Your task to perform on an android device: remove spam from my inbox in the gmail app Image 0: 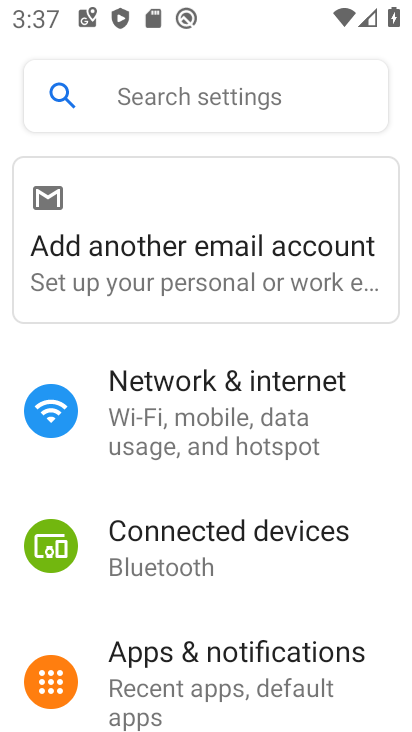
Step 0: press home button
Your task to perform on an android device: remove spam from my inbox in the gmail app Image 1: 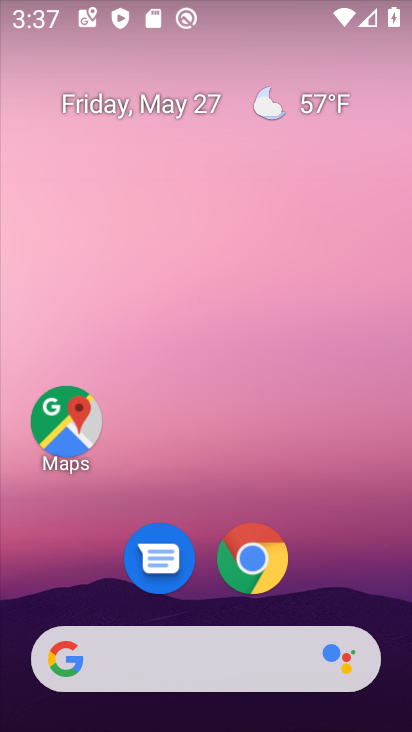
Step 1: drag from (367, 572) to (301, 62)
Your task to perform on an android device: remove spam from my inbox in the gmail app Image 2: 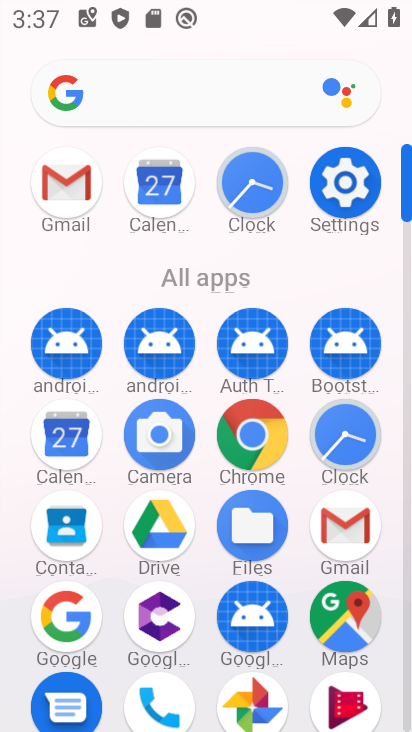
Step 2: click (84, 193)
Your task to perform on an android device: remove spam from my inbox in the gmail app Image 3: 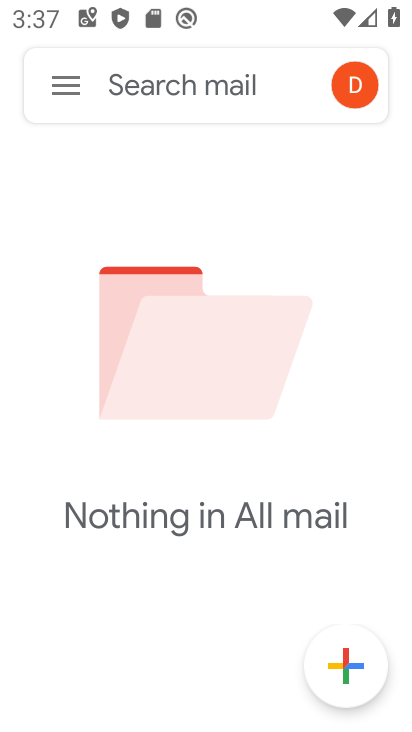
Step 3: click (62, 97)
Your task to perform on an android device: remove spam from my inbox in the gmail app Image 4: 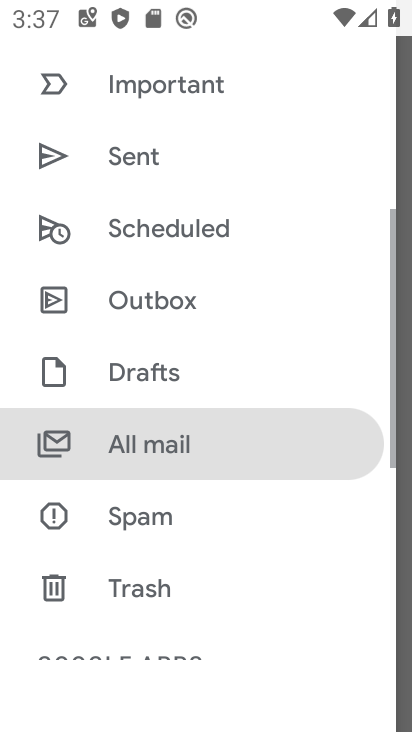
Step 4: task complete